Your task to perform on an android device: Open eBay Image 0: 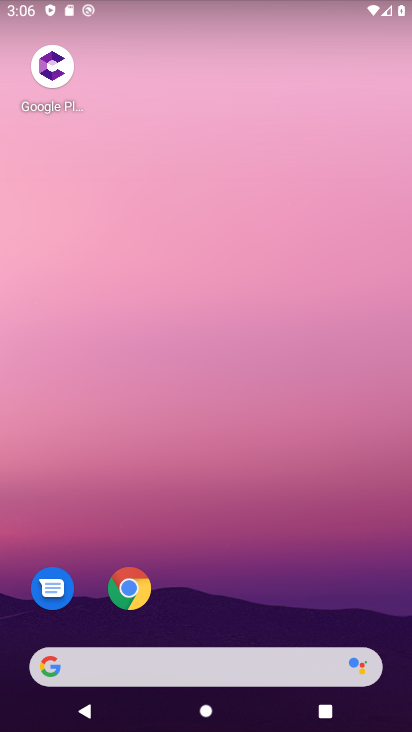
Step 0: click (133, 591)
Your task to perform on an android device: Open eBay Image 1: 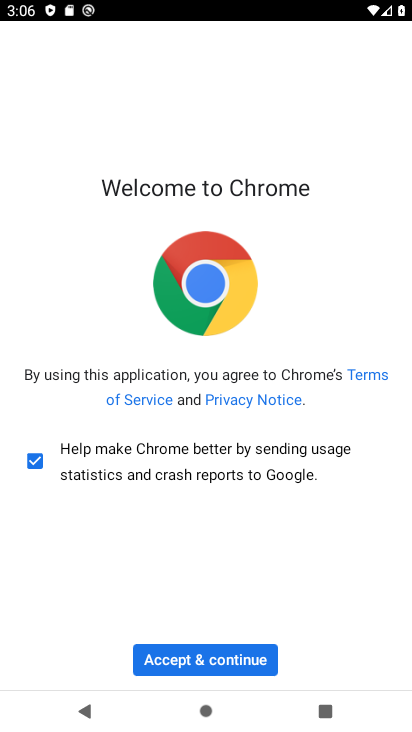
Step 1: click (184, 657)
Your task to perform on an android device: Open eBay Image 2: 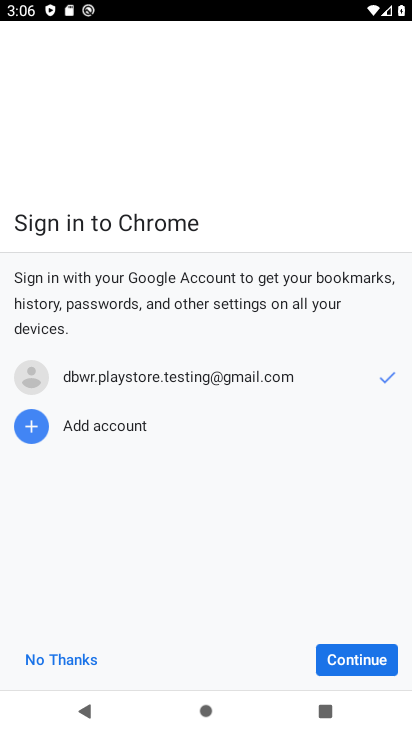
Step 2: click (376, 662)
Your task to perform on an android device: Open eBay Image 3: 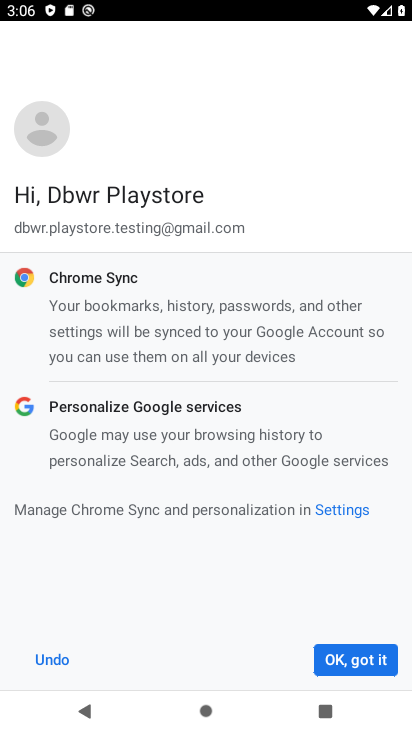
Step 3: click (376, 662)
Your task to perform on an android device: Open eBay Image 4: 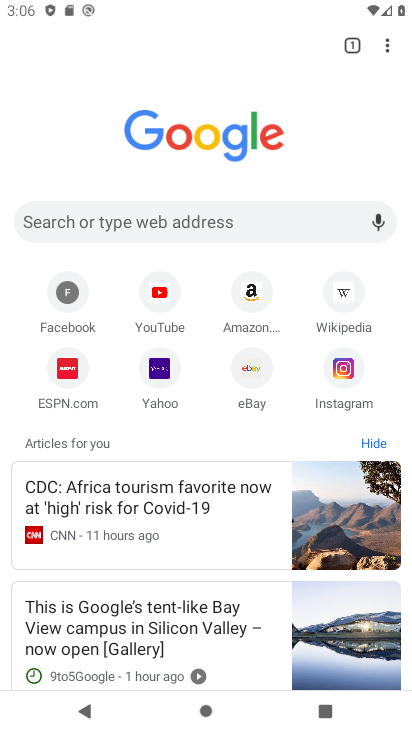
Step 4: click (251, 380)
Your task to perform on an android device: Open eBay Image 5: 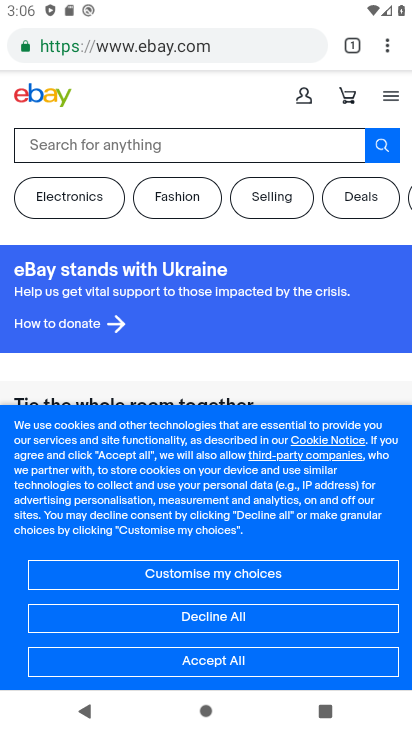
Step 5: click (225, 668)
Your task to perform on an android device: Open eBay Image 6: 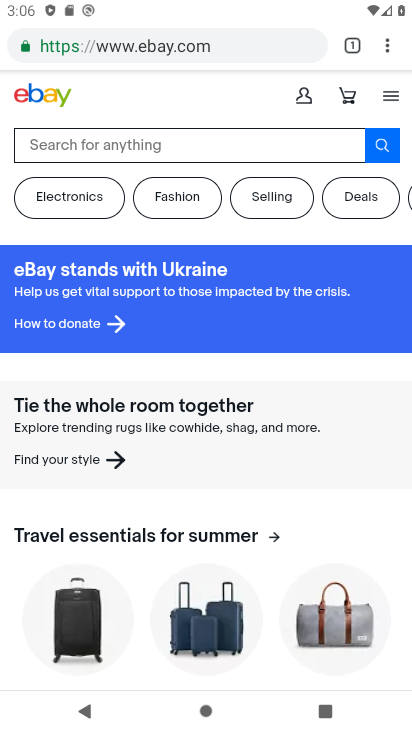
Step 6: task complete